Your task to perform on an android device: Go to CNN.com Image 0: 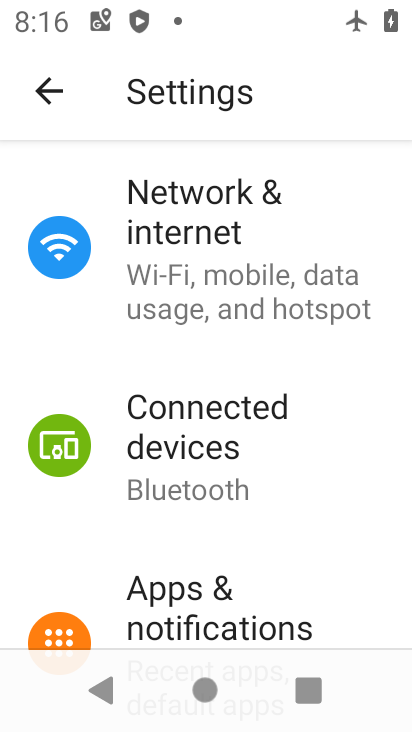
Step 0: press home button
Your task to perform on an android device: Go to CNN.com Image 1: 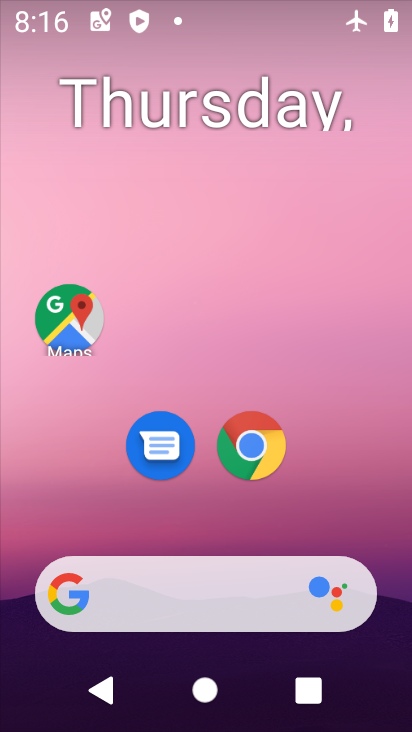
Step 1: drag from (380, 668) to (341, 127)
Your task to perform on an android device: Go to CNN.com Image 2: 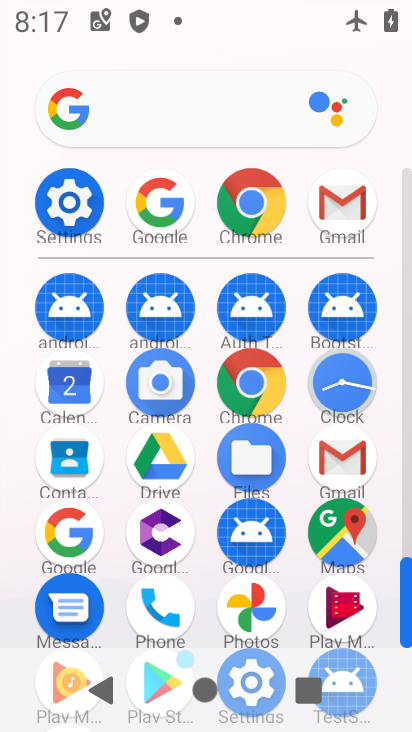
Step 2: click (62, 548)
Your task to perform on an android device: Go to CNN.com Image 3: 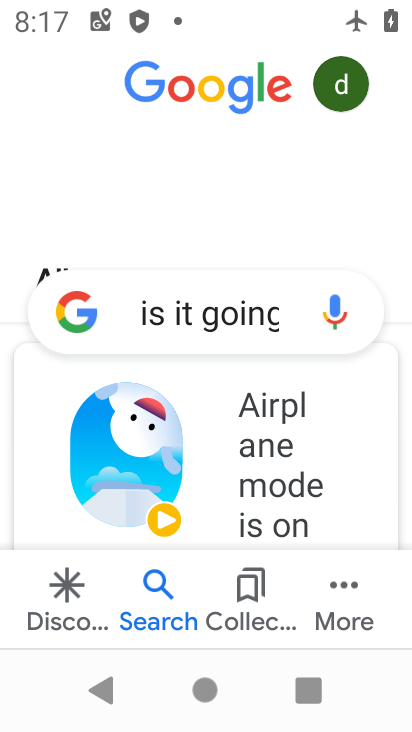
Step 3: press back button
Your task to perform on an android device: Go to CNN.com Image 4: 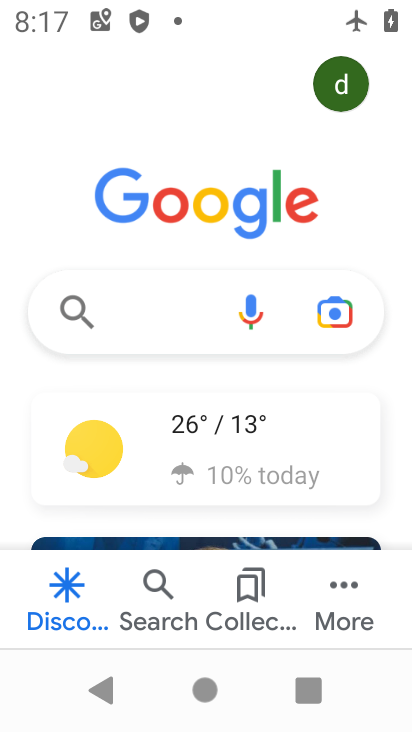
Step 4: click (136, 332)
Your task to perform on an android device: Go to CNN.com Image 5: 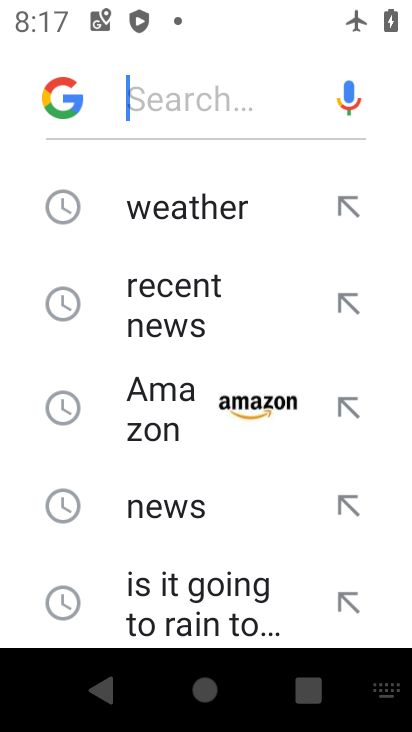
Step 5: drag from (129, 555) to (179, 106)
Your task to perform on an android device: Go to CNN.com Image 6: 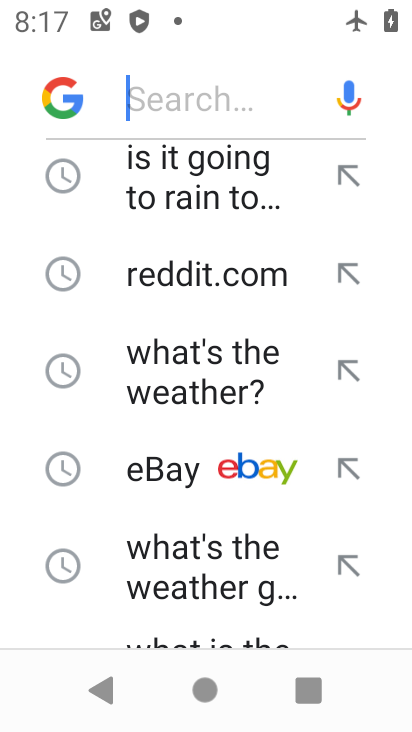
Step 6: click (234, 102)
Your task to perform on an android device: Go to CNN.com Image 7: 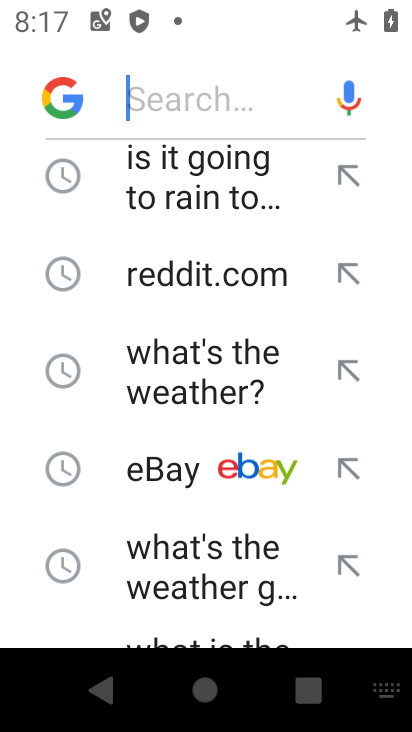
Step 7: drag from (75, 545) to (149, 194)
Your task to perform on an android device: Go to CNN.com Image 8: 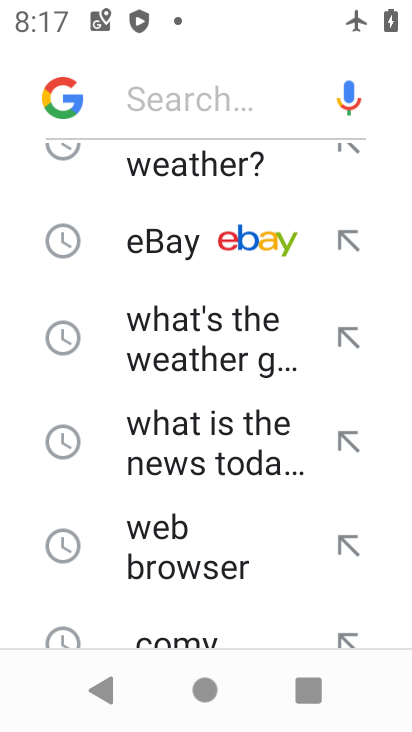
Step 8: drag from (168, 534) to (196, 158)
Your task to perform on an android device: Go to CNN.com Image 9: 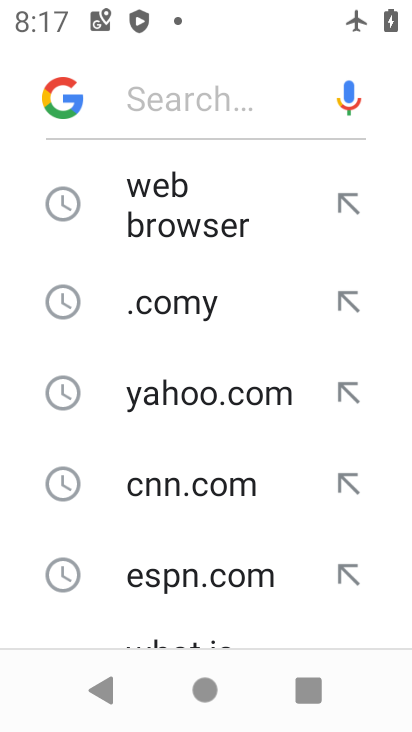
Step 9: click (200, 486)
Your task to perform on an android device: Go to CNN.com Image 10: 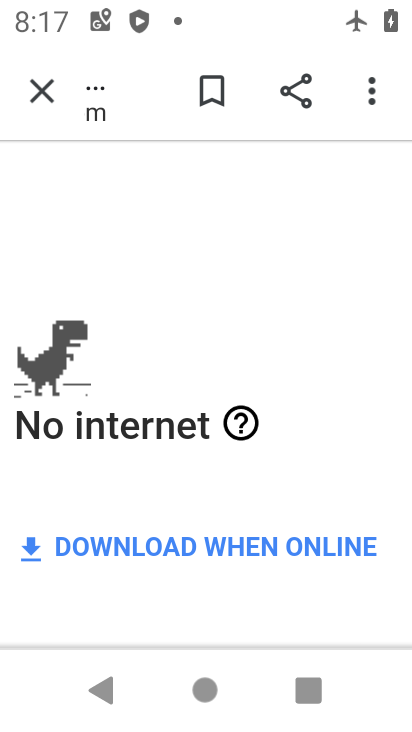
Step 10: task complete